Your task to perform on an android device: change the clock style Image 0: 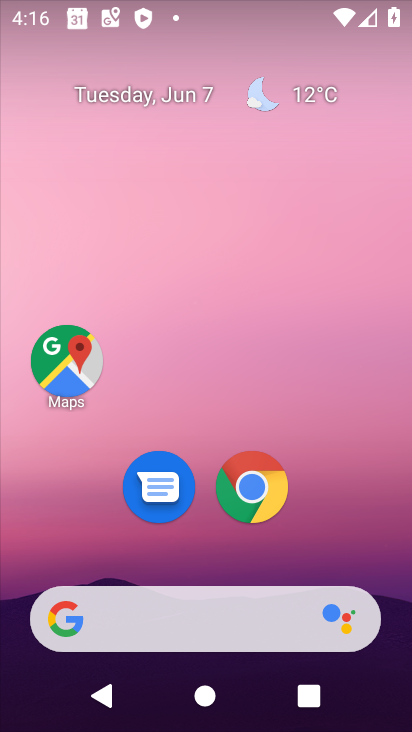
Step 0: click (250, 492)
Your task to perform on an android device: change the clock style Image 1: 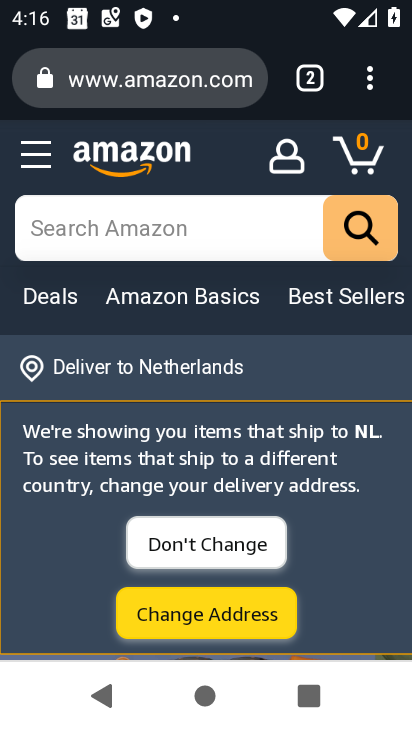
Step 1: press back button
Your task to perform on an android device: change the clock style Image 2: 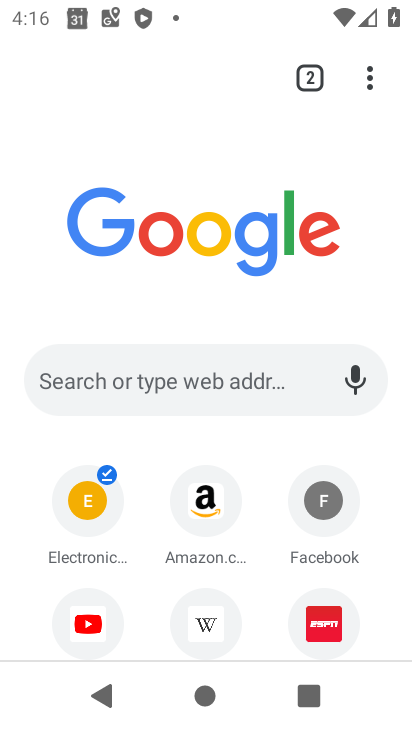
Step 2: press back button
Your task to perform on an android device: change the clock style Image 3: 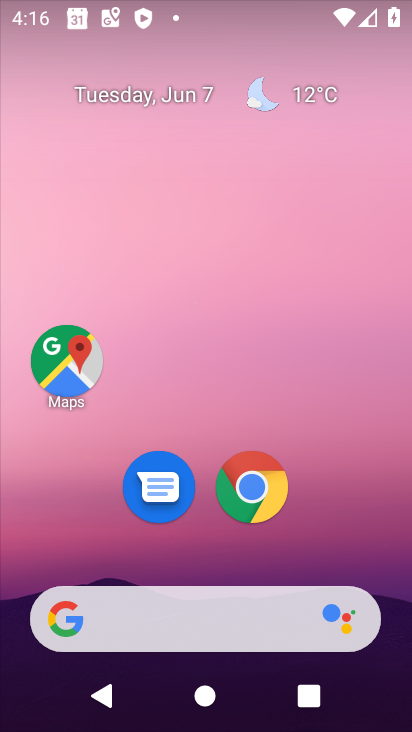
Step 3: drag from (198, 540) to (292, 107)
Your task to perform on an android device: change the clock style Image 4: 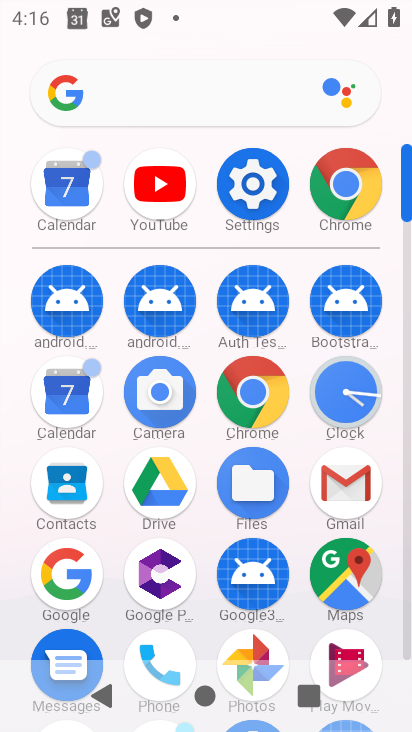
Step 4: click (340, 387)
Your task to perform on an android device: change the clock style Image 5: 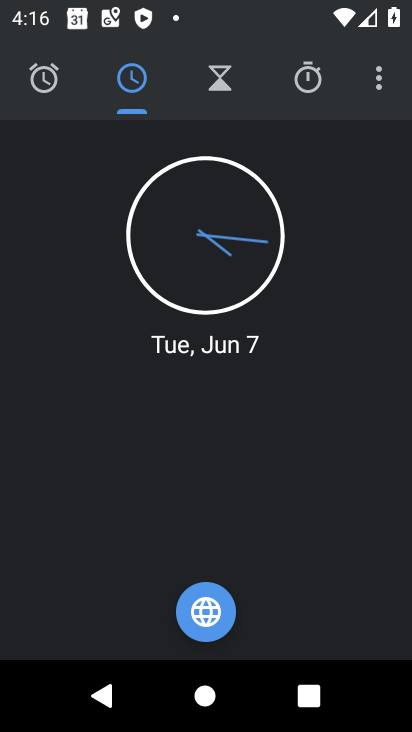
Step 5: click (382, 80)
Your task to perform on an android device: change the clock style Image 6: 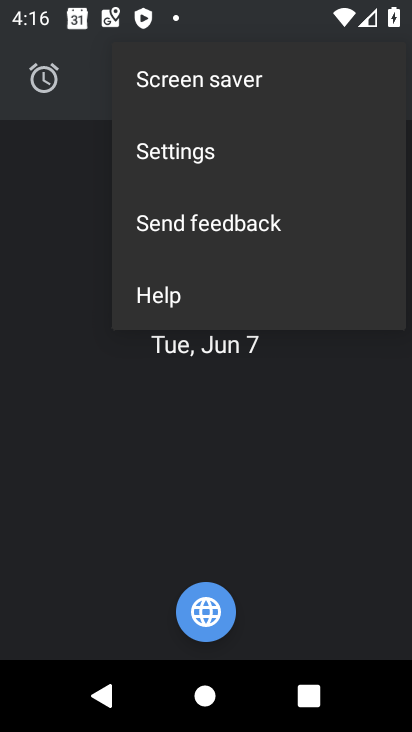
Step 6: click (191, 151)
Your task to perform on an android device: change the clock style Image 7: 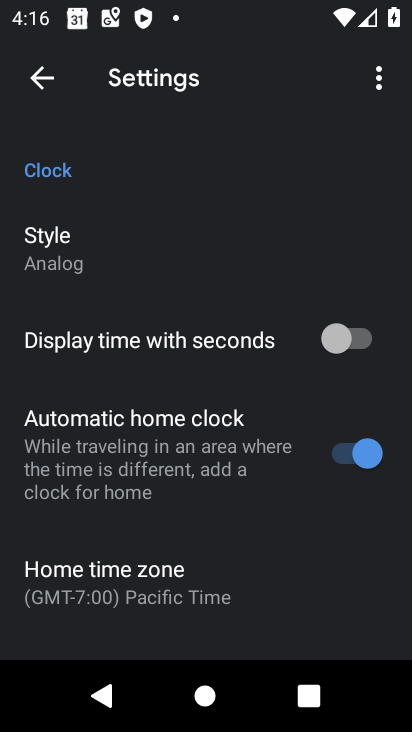
Step 7: click (101, 256)
Your task to perform on an android device: change the clock style Image 8: 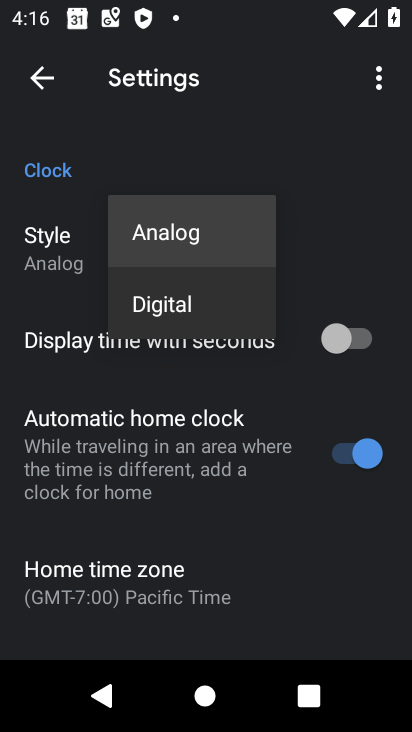
Step 8: click (203, 316)
Your task to perform on an android device: change the clock style Image 9: 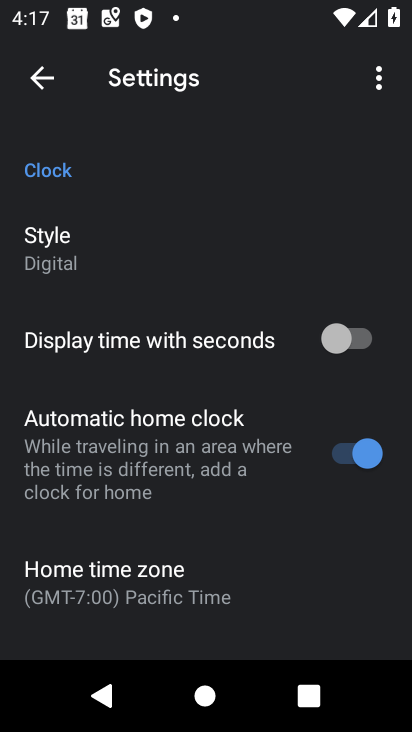
Step 9: task complete